Your task to perform on an android device: What is the capital of Canada? Image 0: 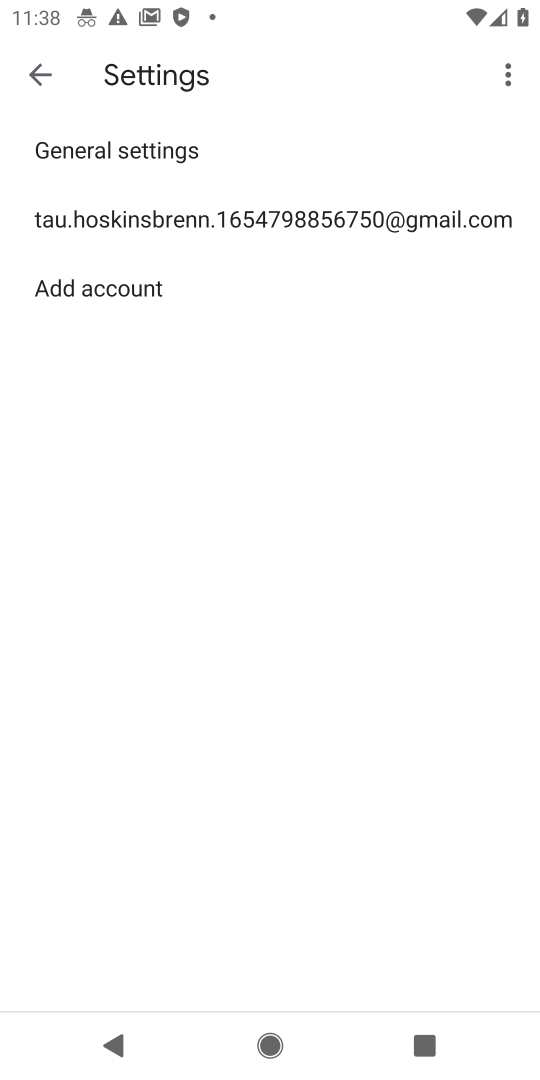
Step 0: press home button
Your task to perform on an android device: What is the capital of Canada? Image 1: 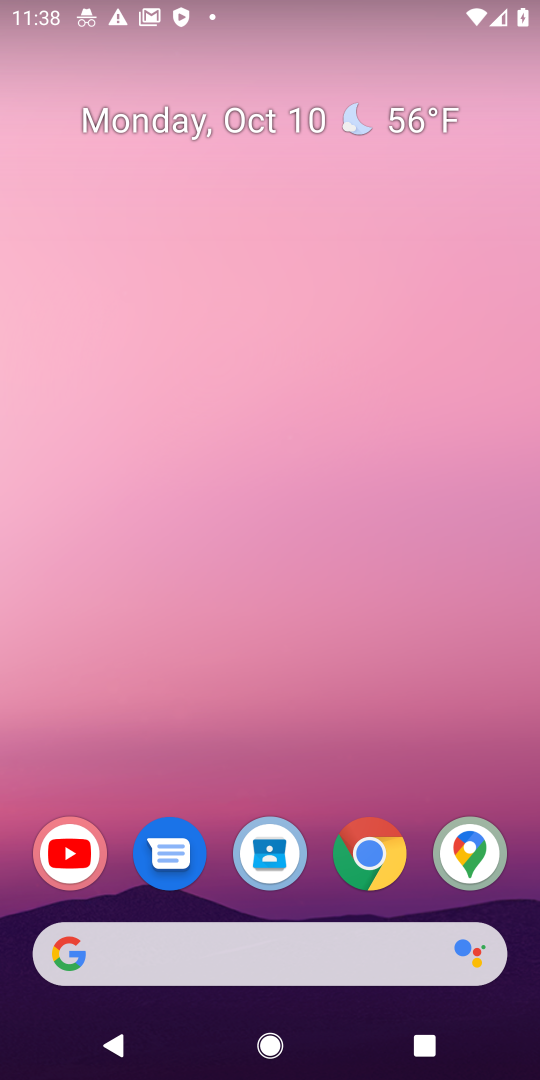
Step 1: press home button
Your task to perform on an android device: What is the capital of Canada? Image 2: 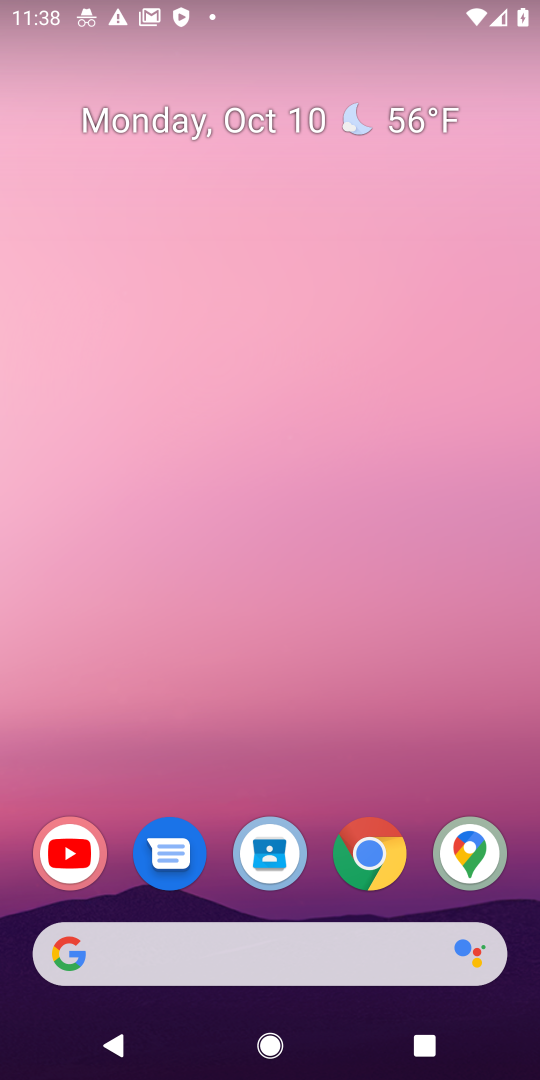
Step 2: click (230, 987)
Your task to perform on an android device: What is the capital of Canada? Image 3: 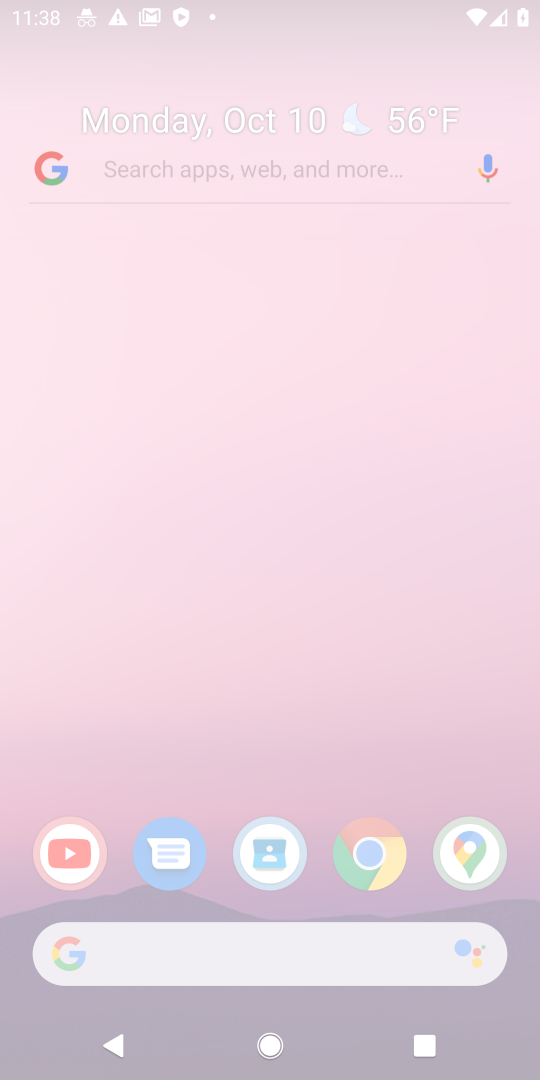
Step 3: click (265, 964)
Your task to perform on an android device: What is the capital of Canada? Image 4: 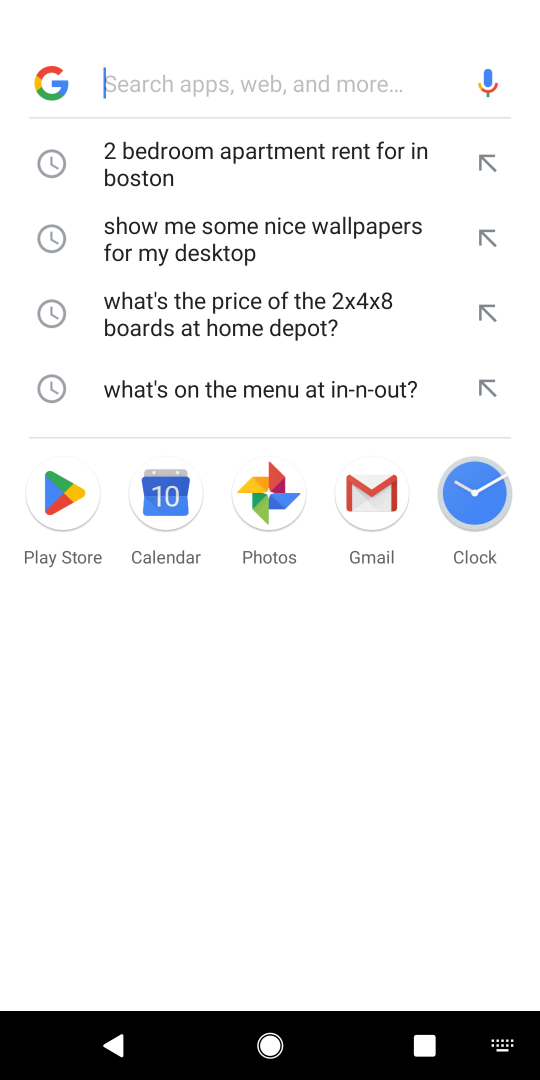
Step 4: type "What is the capital of Canada?"
Your task to perform on an android device: What is the capital of Canada? Image 5: 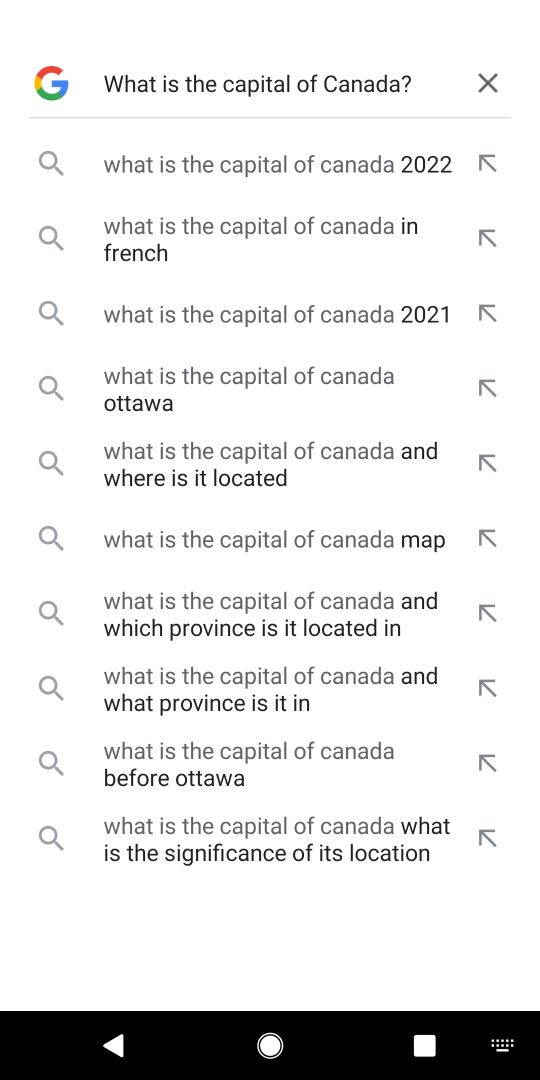
Step 5: press enter
Your task to perform on an android device: What is the capital of Canada? Image 6: 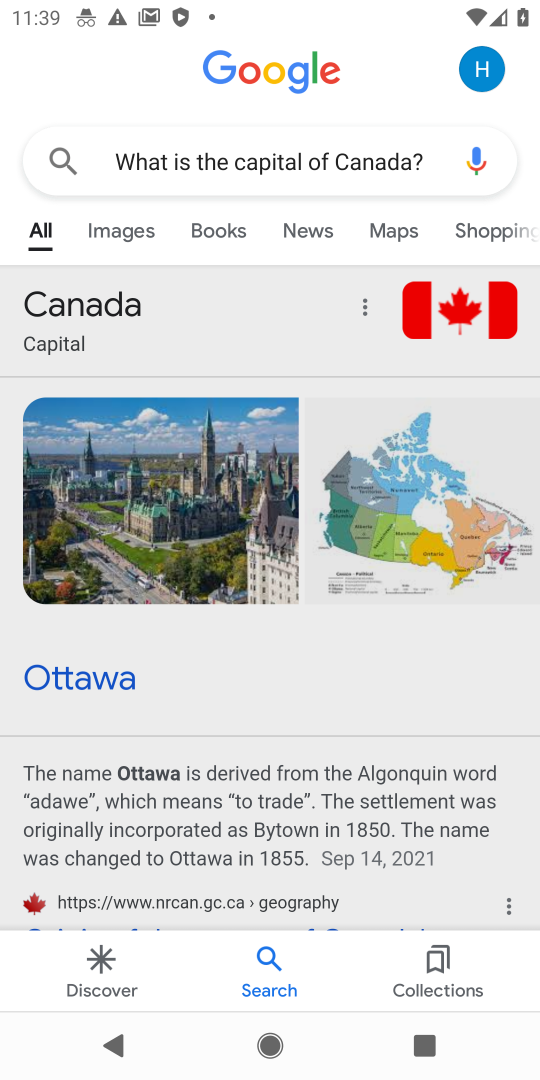
Step 6: task complete